Your task to perform on an android device: Open Google Chrome and click the shortcut for Amazon.com Image 0: 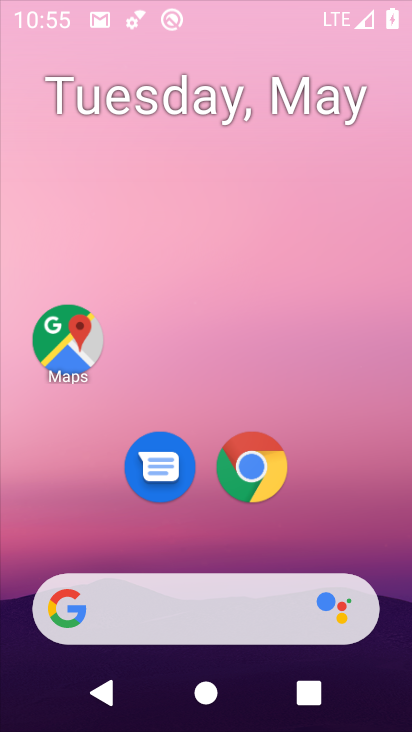
Step 0: click (271, 198)
Your task to perform on an android device: Open Google Chrome and click the shortcut for Amazon.com Image 1: 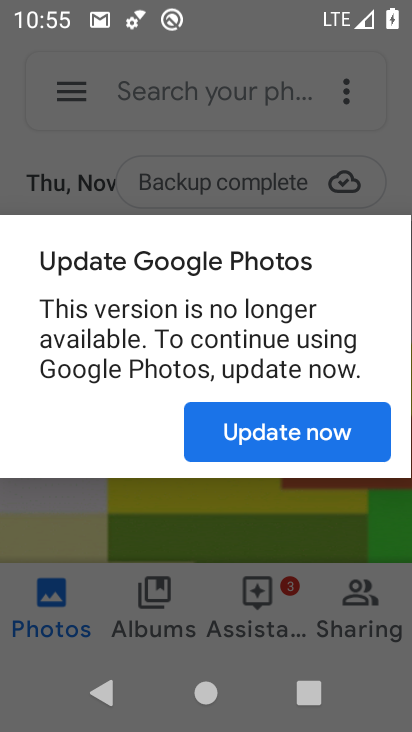
Step 1: press home button
Your task to perform on an android device: Open Google Chrome and click the shortcut for Amazon.com Image 2: 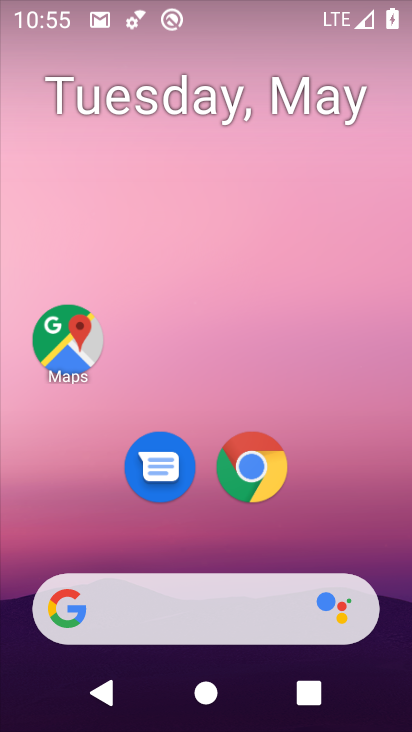
Step 2: drag from (211, 533) to (284, 141)
Your task to perform on an android device: Open Google Chrome and click the shortcut for Amazon.com Image 3: 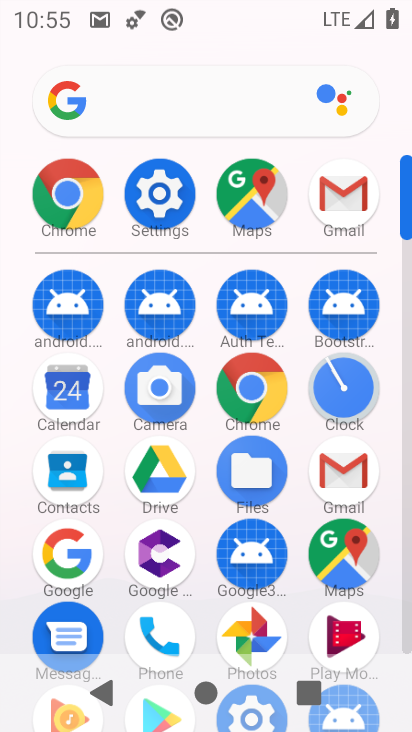
Step 3: click (245, 378)
Your task to perform on an android device: Open Google Chrome and click the shortcut for Amazon.com Image 4: 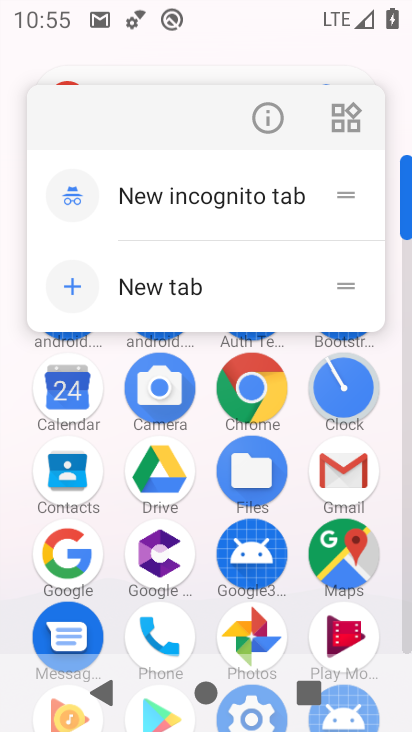
Step 4: click (259, 114)
Your task to perform on an android device: Open Google Chrome and click the shortcut for Amazon.com Image 5: 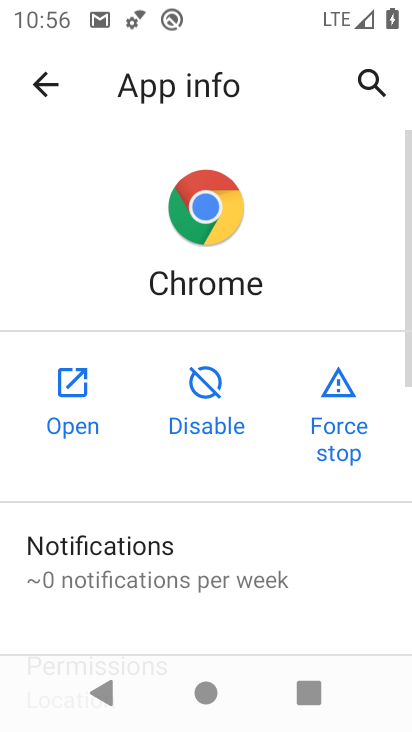
Step 5: click (73, 380)
Your task to perform on an android device: Open Google Chrome and click the shortcut for Amazon.com Image 6: 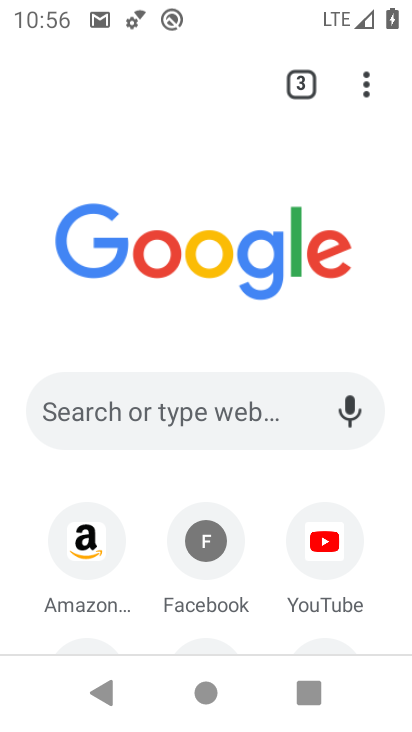
Step 6: drag from (263, 546) to (332, 190)
Your task to perform on an android device: Open Google Chrome and click the shortcut for Amazon.com Image 7: 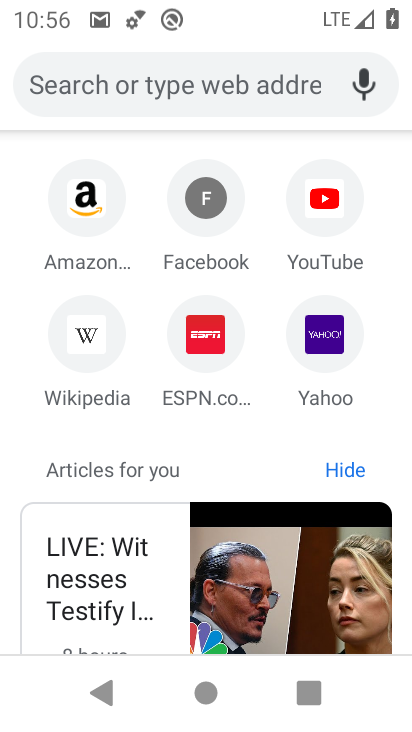
Step 7: drag from (282, 201) to (255, 639)
Your task to perform on an android device: Open Google Chrome and click the shortcut for Amazon.com Image 8: 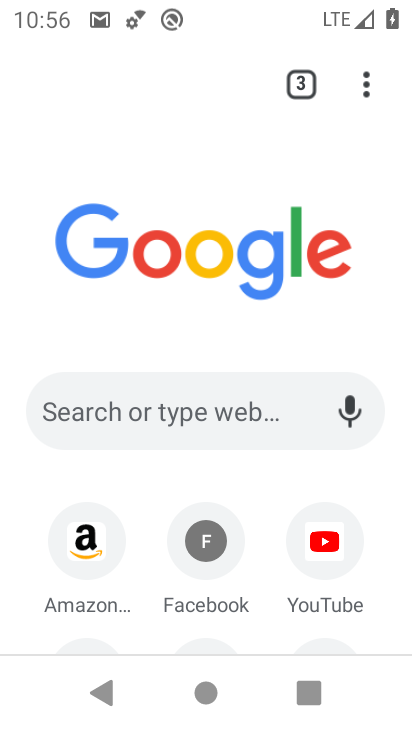
Step 8: drag from (243, 508) to (319, 278)
Your task to perform on an android device: Open Google Chrome and click the shortcut for Amazon.com Image 9: 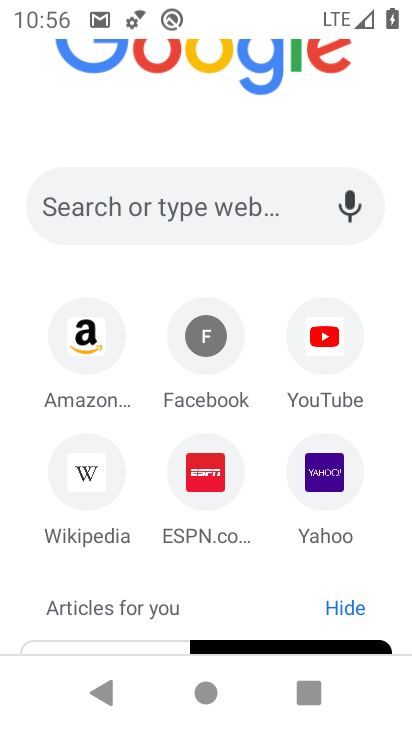
Step 9: click (59, 333)
Your task to perform on an android device: Open Google Chrome and click the shortcut for Amazon.com Image 10: 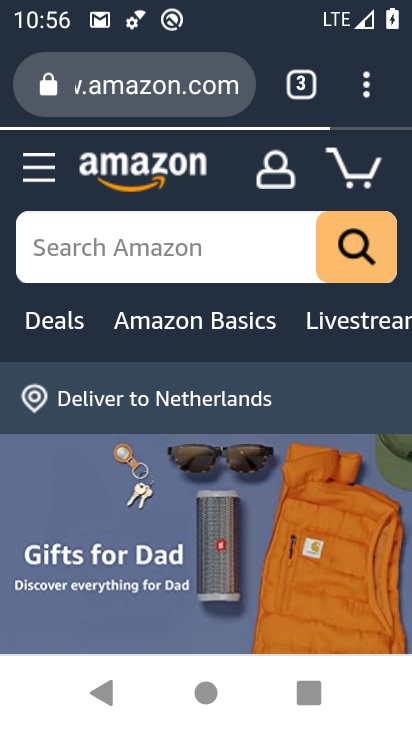
Step 10: task complete